Your task to perform on an android device: turn off notifications settings in the gmail app Image 0: 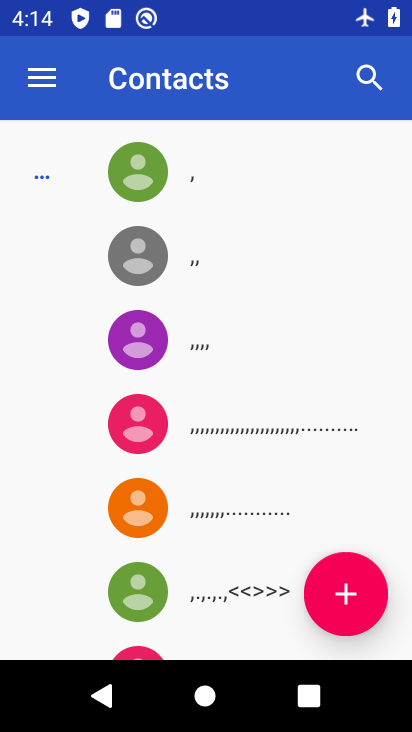
Step 0: press home button
Your task to perform on an android device: turn off notifications settings in the gmail app Image 1: 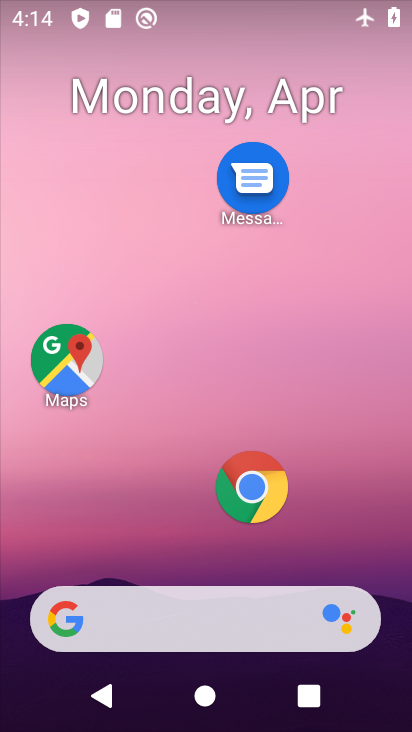
Step 1: drag from (166, 525) to (245, 19)
Your task to perform on an android device: turn off notifications settings in the gmail app Image 2: 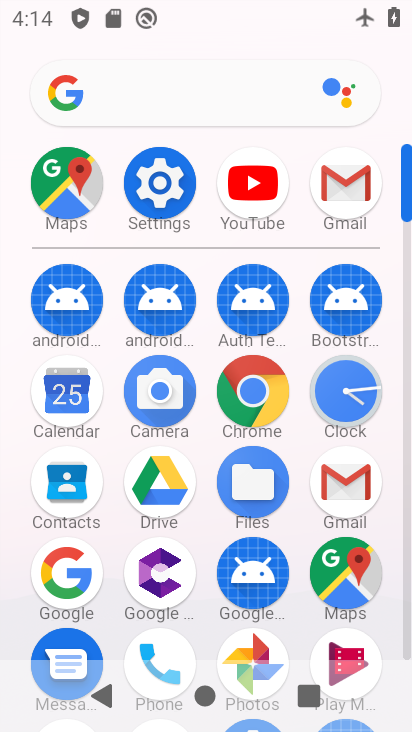
Step 2: click (335, 493)
Your task to perform on an android device: turn off notifications settings in the gmail app Image 3: 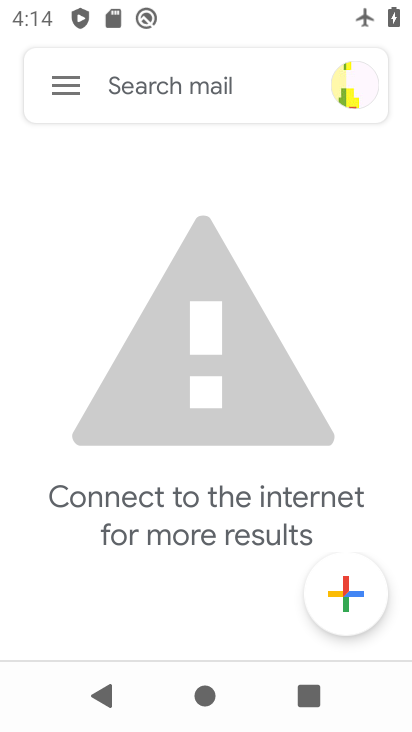
Step 3: click (57, 81)
Your task to perform on an android device: turn off notifications settings in the gmail app Image 4: 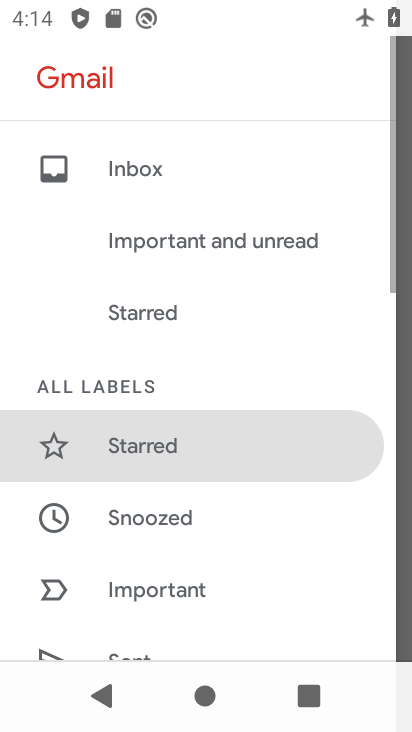
Step 4: drag from (125, 551) to (216, 13)
Your task to perform on an android device: turn off notifications settings in the gmail app Image 5: 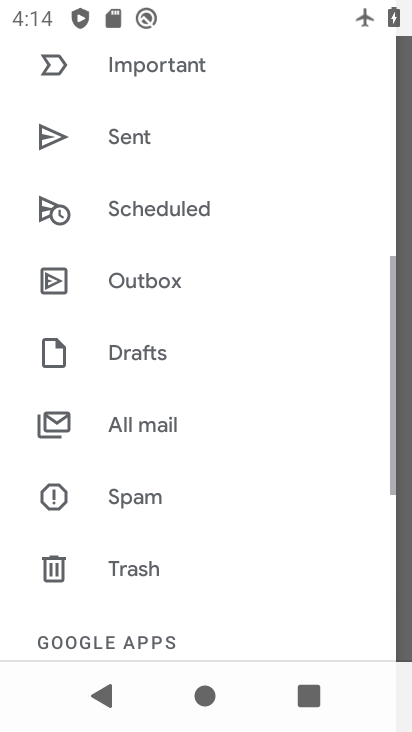
Step 5: drag from (168, 507) to (255, 48)
Your task to perform on an android device: turn off notifications settings in the gmail app Image 6: 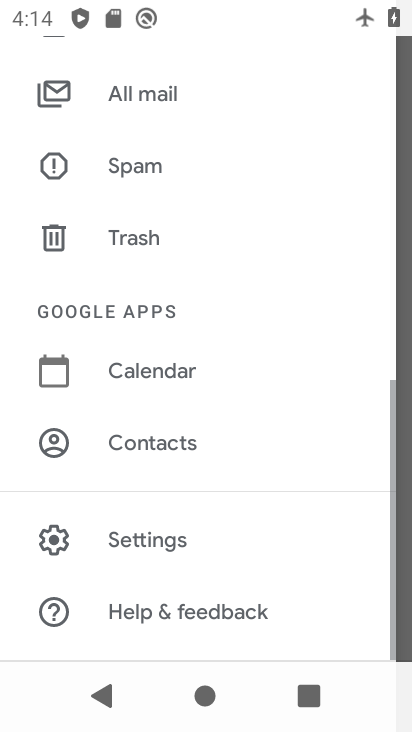
Step 6: click (176, 528)
Your task to perform on an android device: turn off notifications settings in the gmail app Image 7: 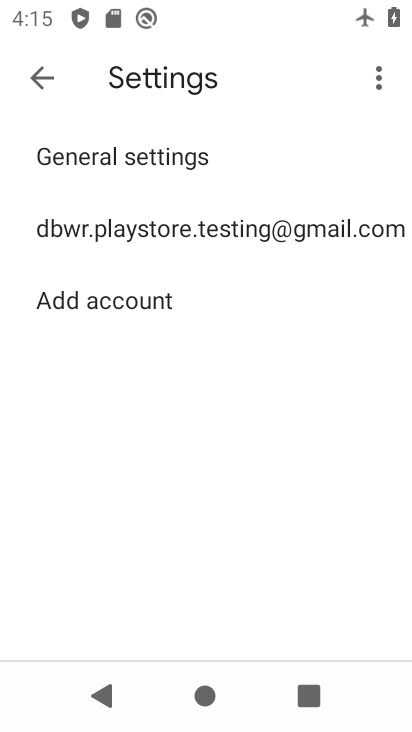
Step 7: click (139, 176)
Your task to perform on an android device: turn off notifications settings in the gmail app Image 8: 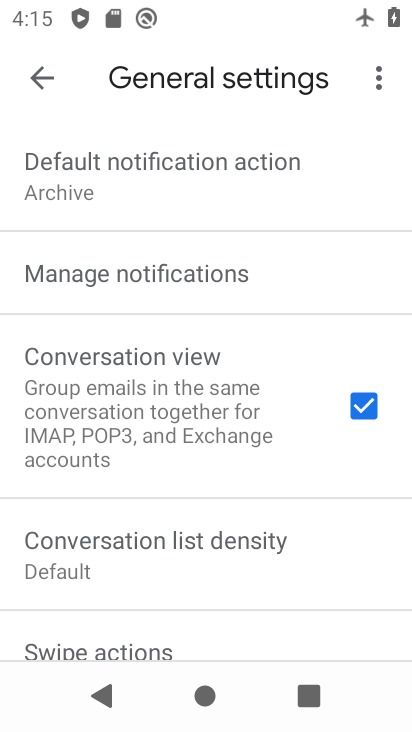
Step 8: drag from (167, 442) to (190, 345)
Your task to perform on an android device: turn off notifications settings in the gmail app Image 9: 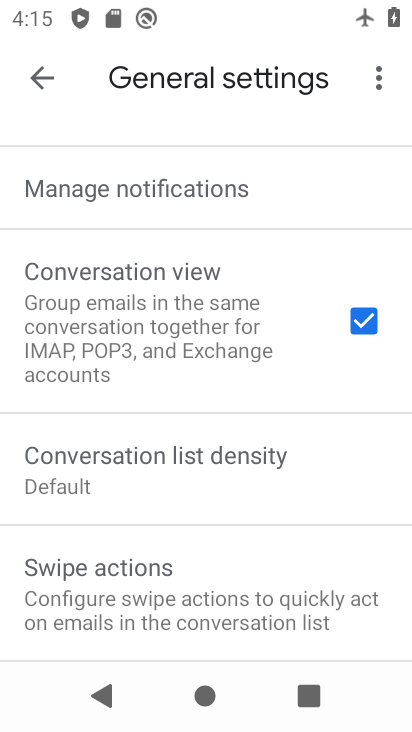
Step 9: click (162, 192)
Your task to perform on an android device: turn off notifications settings in the gmail app Image 10: 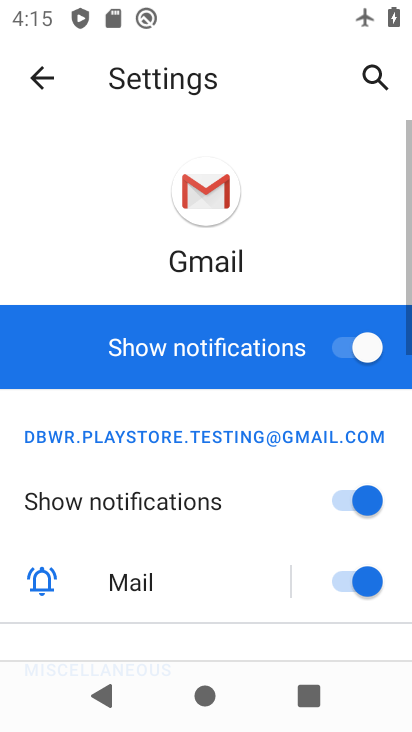
Step 10: click (322, 341)
Your task to perform on an android device: turn off notifications settings in the gmail app Image 11: 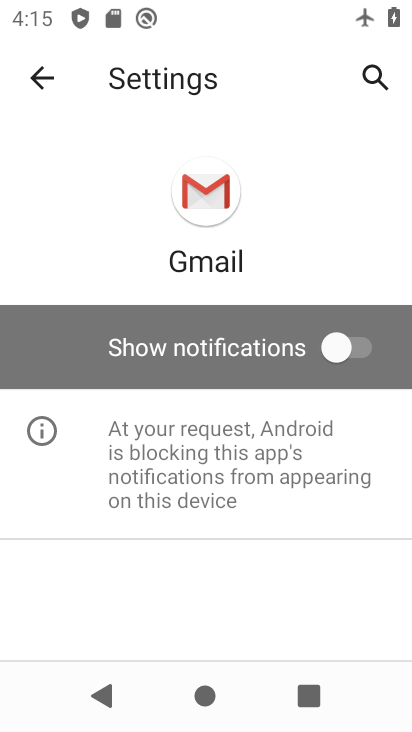
Step 11: task complete